Your task to perform on an android device: When is my next appointment? Image 0: 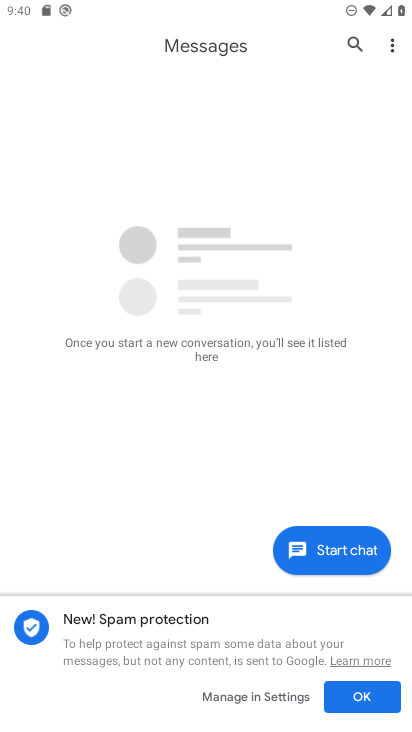
Step 0: press home button
Your task to perform on an android device: When is my next appointment? Image 1: 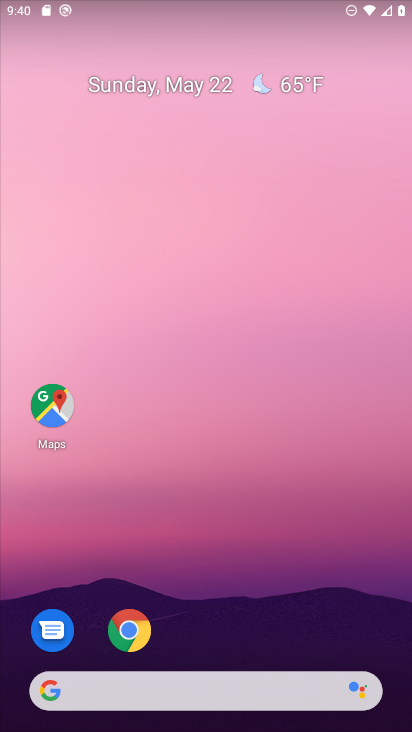
Step 1: drag from (200, 633) to (307, 210)
Your task to perform on an android device: When is my next appointment? Image 2: 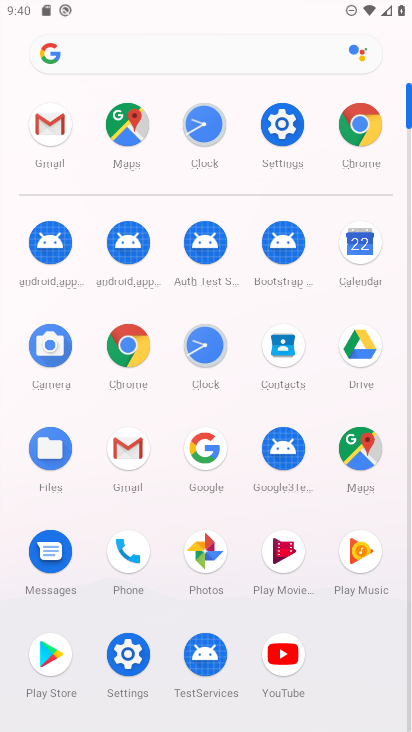
Step 2: click (354, 257)
Your task to perform on an android device: When is my next appointment? Image 3: 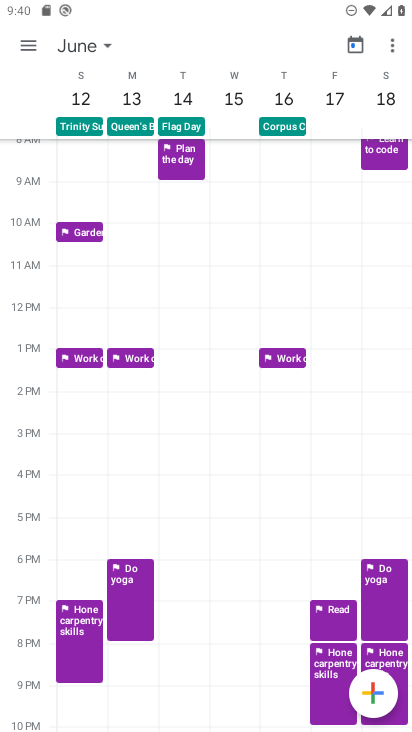
Step 3: click (74, 46)
Your task to perform on an android device: When is my next appointment? Image 4: 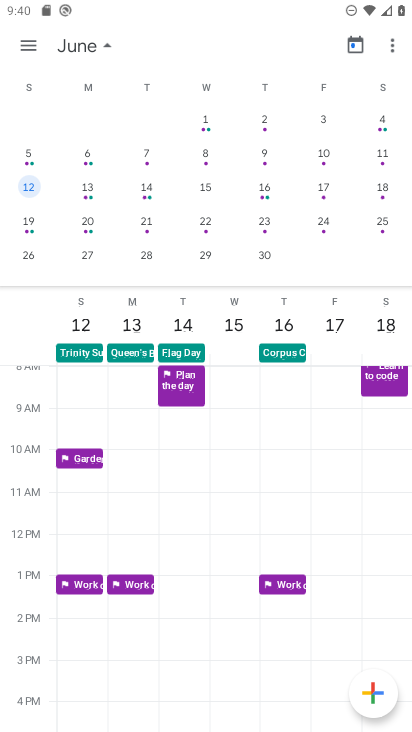
Step 4: drag from (118, 203) to (389, 179)
Your task to perform on an android device: When is my next appointment? Image 5: 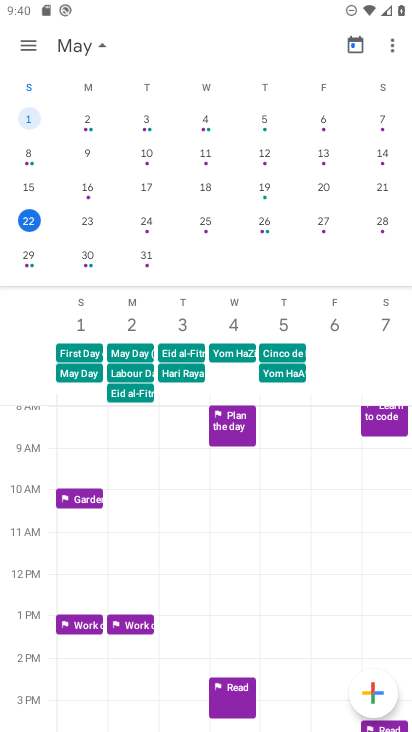
Step 5: click (27, 223)
Your task to perform on an android device: When is my next appointment? Image 6: 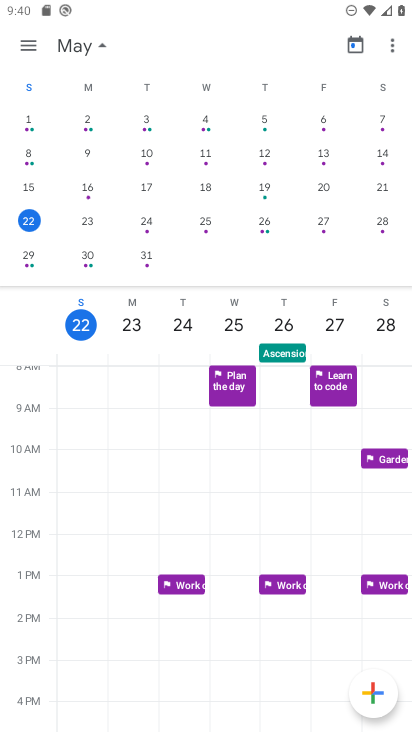
Step 6: click (17, 57)
Your task to perform on an android device: When is my next appointment? Image 7: 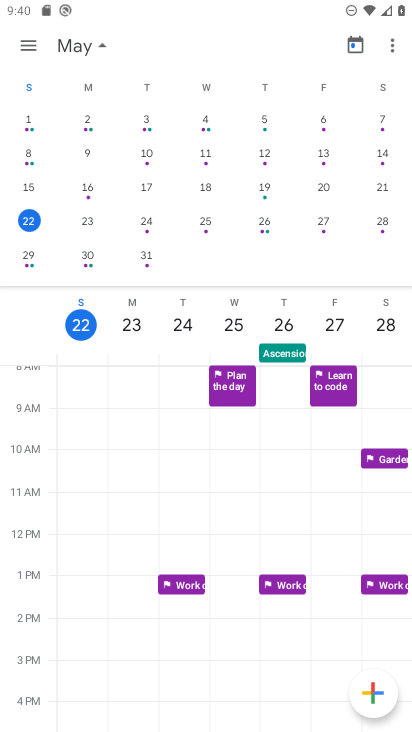
Step 7: click (26, 48)
Your task to perform on an android device: When is my next appointment? Image 8: 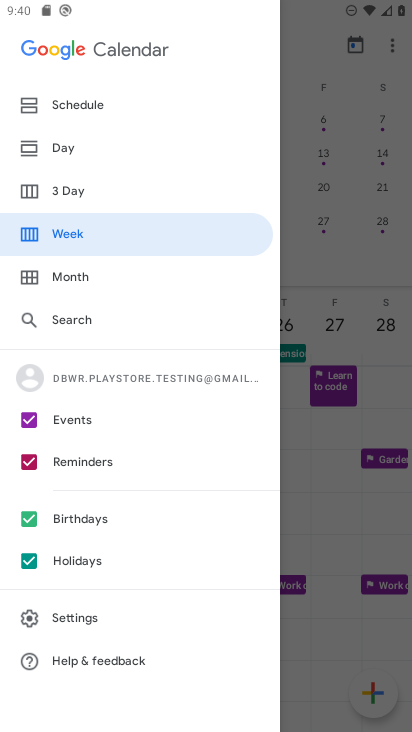
Step 8: click (98, 109)
Your task to perform on an android device: When is my next appointment? Image 9: 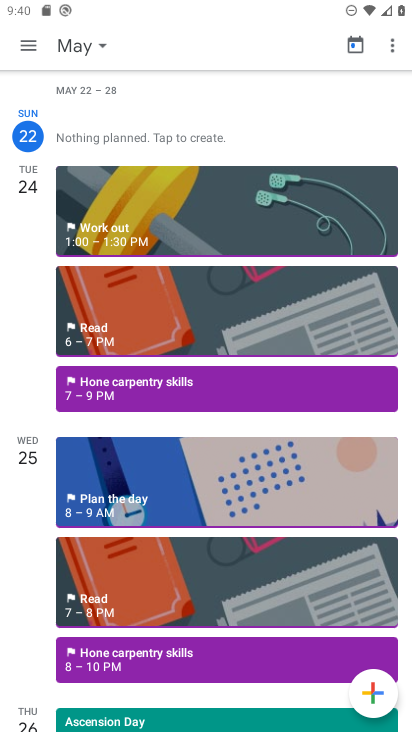
Step 9: click (143, 399)
Your task to perform on an android device: When is my next appointment? Image 10: 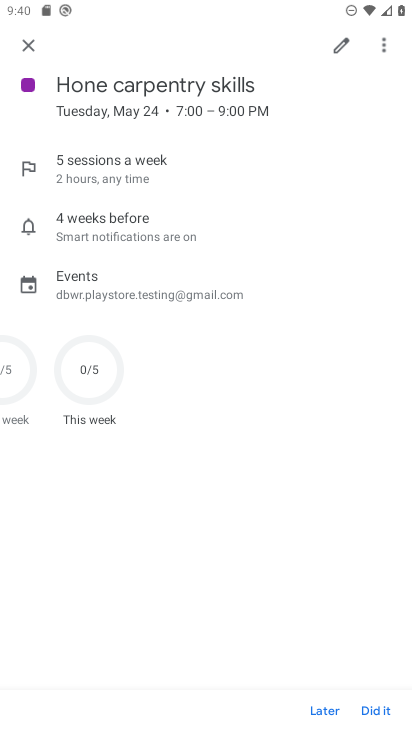
Step 10: task complete